Your task to perform on an android device: Open Amazon Image 0: 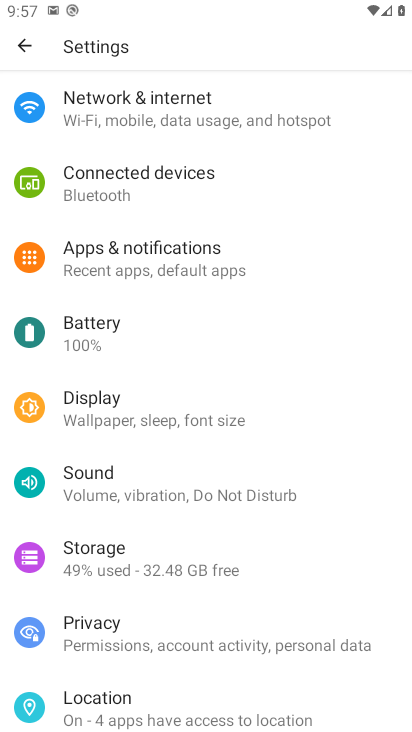
Step 0: press home button
Your task to perform on an android device: Open Amazon Image 1: 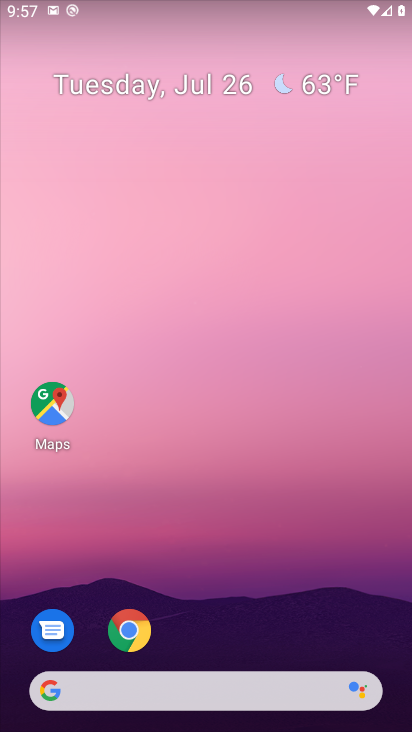
Step 1: click (131, 623)
Your task to perform on an android device: Open Amazon Image 2: 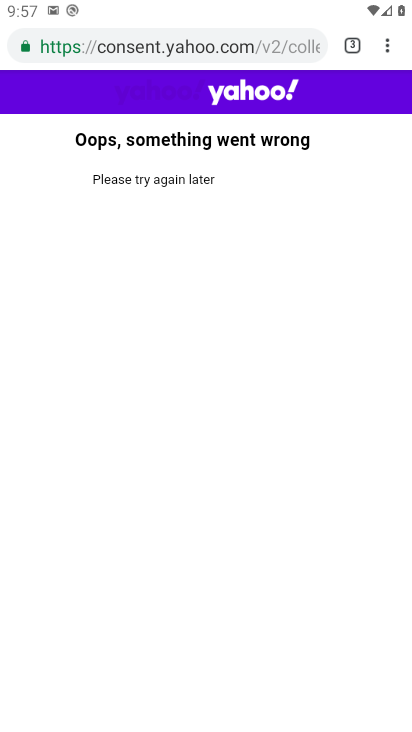
Step 2: click (348, 42)
Your task to perform on an android device: Open Amazon Image 3: 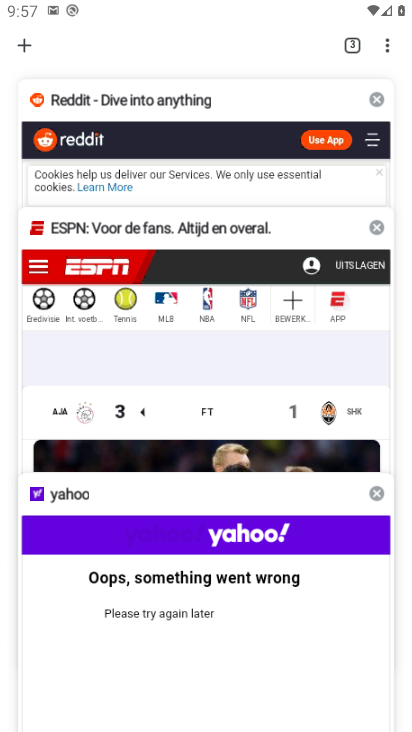
Step 3: click (20, 45)
Your task to perform on an android device: Open Amazon Image 4: 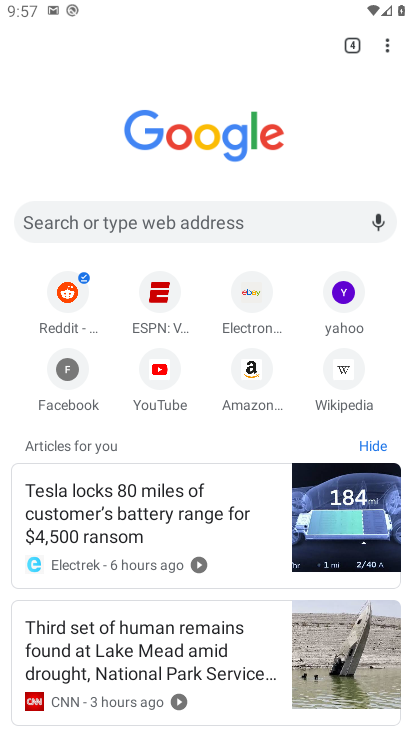
Step 4: click (250, 369)
Your task to perform on an android device: Open Amazon Image 5: 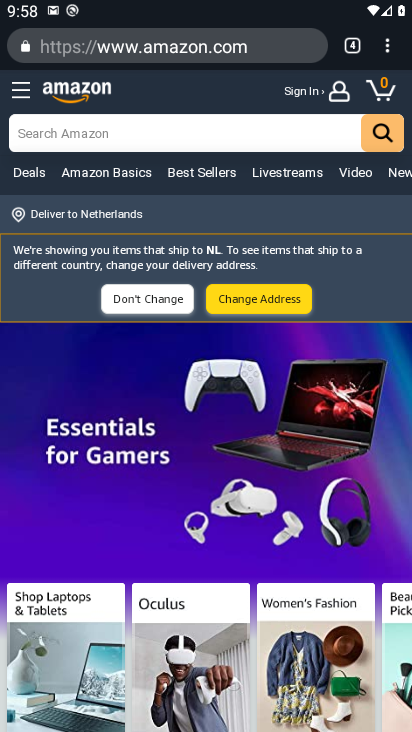
Step 5: task complete